Your task to perform on an android device: check google app version Image 0: 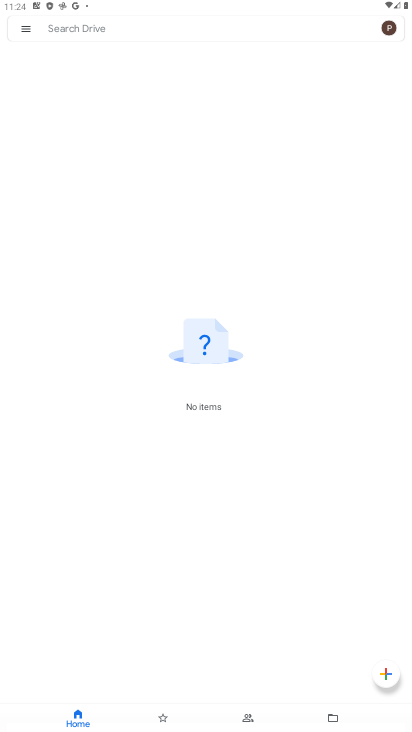
Step 0: task complete